Your task to perform on an android device: Go to network settings Image 0: 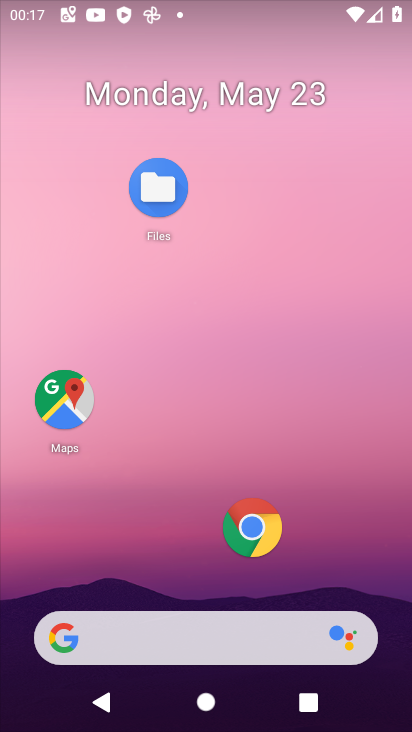
Step 0: drag from (146, 525) to (132, 132)
Your task to perform on an android device: Go to network settings Image 1: 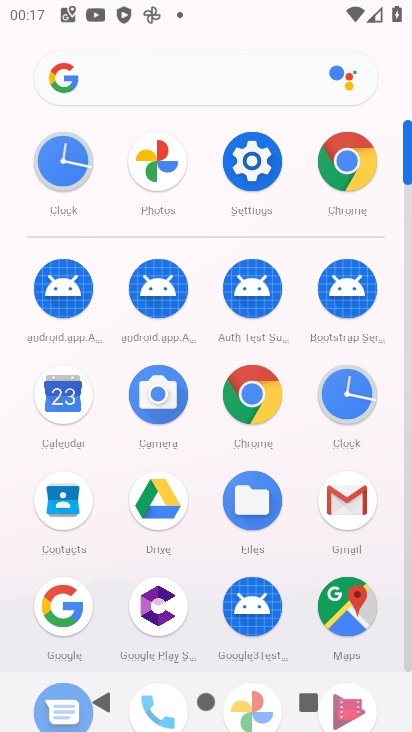
Step 1: click (254, 177)
Your task to perform on an android device: Go to network settings Image 2: 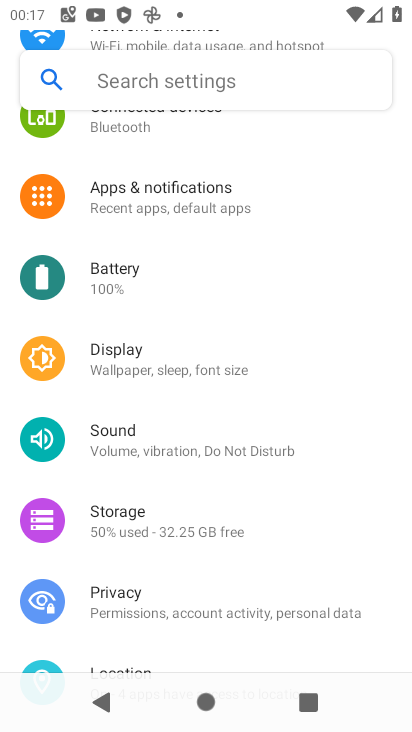
Step 2: drag from (222, 224) to (248, 616)
Your task to perform on an android device: Go to network settings Image 3: 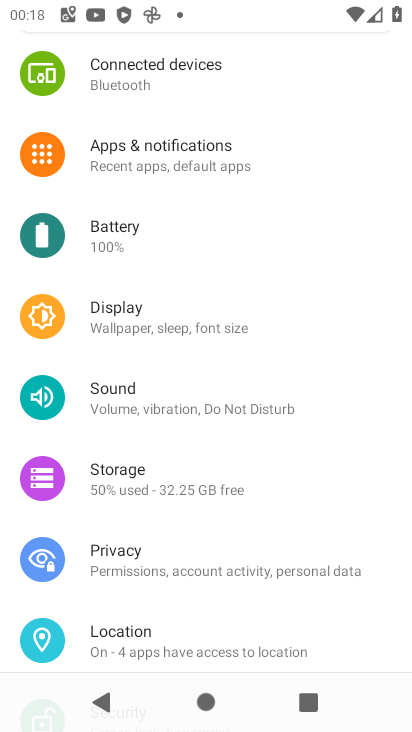
Step 3: drag from (194, 193) to (159, 646)
Your task to perform on an android device: Go to network settings Image 4: 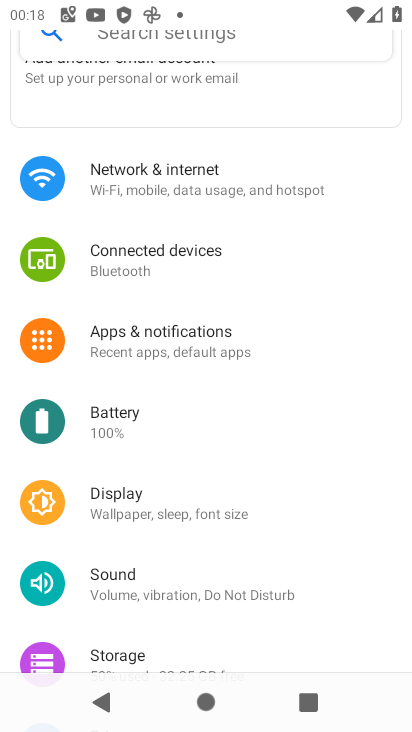
Step 4: click (148, 167)
Your task to perform on an android device: Go to network settings Image 5: 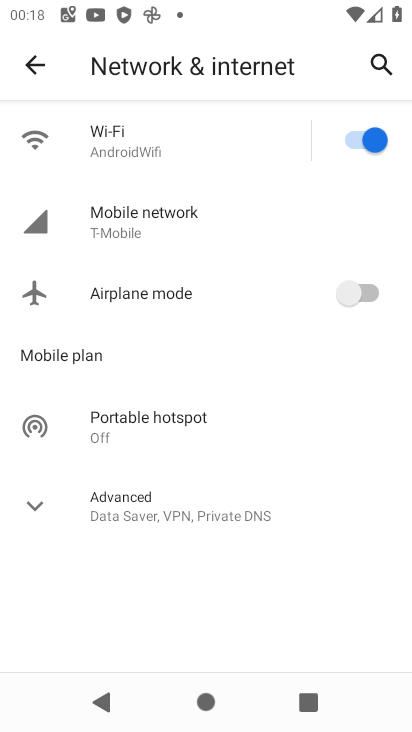
Step 5: click (153, 208)
Your task to perform on an android device: Go to network settings Image 6: 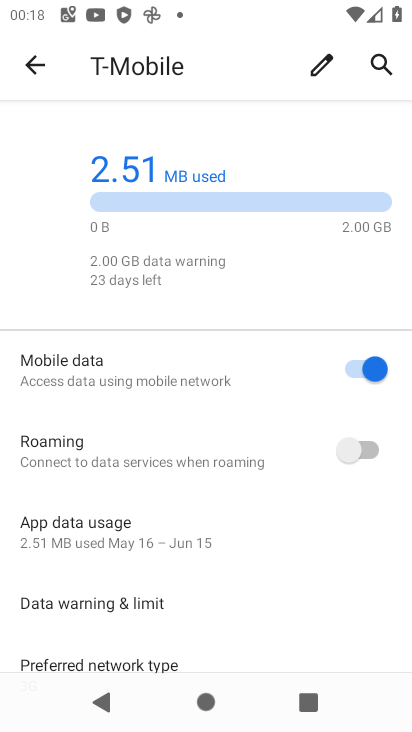
Step 6: task complete